Your task to perform on an android device: turn off translation in the chrome app Image 0: 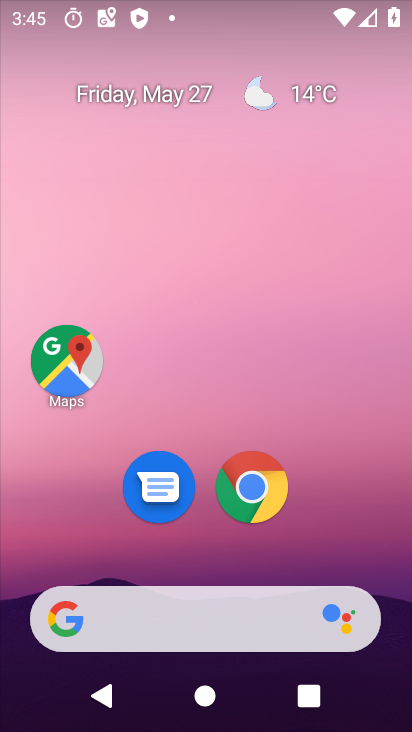
Step 0: click (255, 489)
Your task to perform on an android device: turn off translation in the chrome app Image 1: 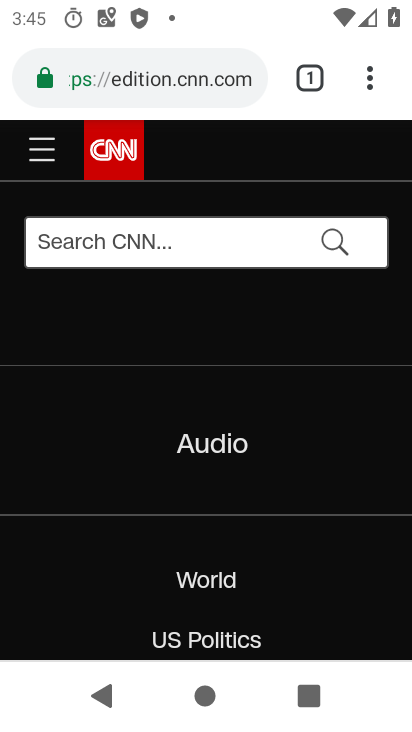
Step 1: drag from (377, 77) to (164, 537)
Your task to perform on an android device: turn off translation in the chrome app Image 2: 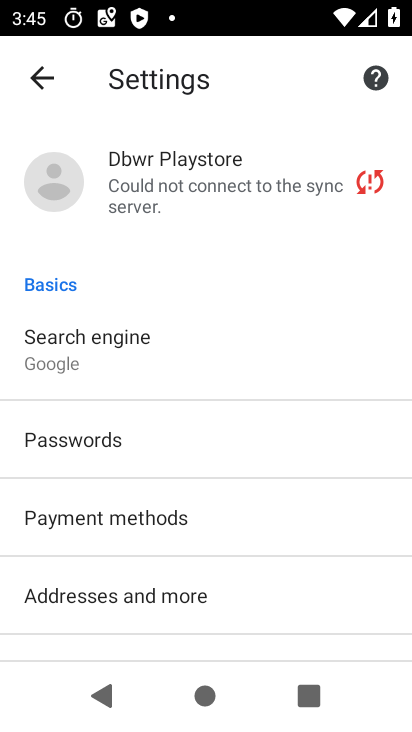
Step 2: drag from (228, 481) to (222, 250)
Your task to perform on an android device: turn off translation in the chrome app Image 3: 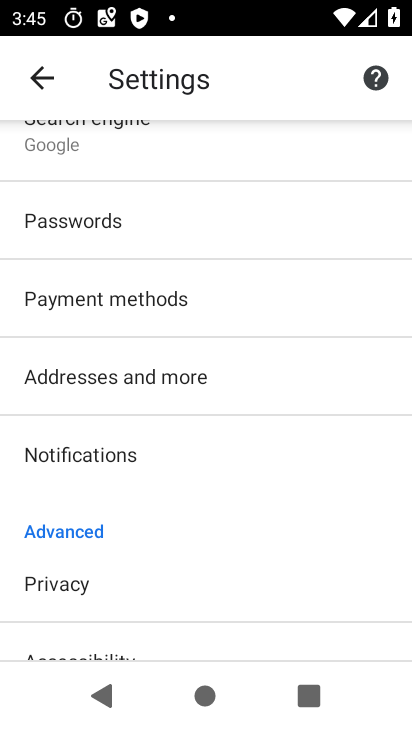
Step 3: drag from (247, 529) to (297, 302)
Your task to perform on an android device: turn off translation in the chrome app Image 4: 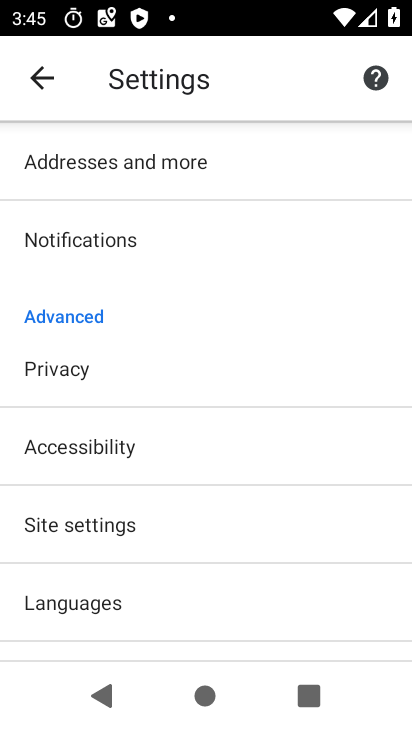
Step 4: click (130, 241)
Your task to perform on an android device: turn off translation in the chrome app Image 5: 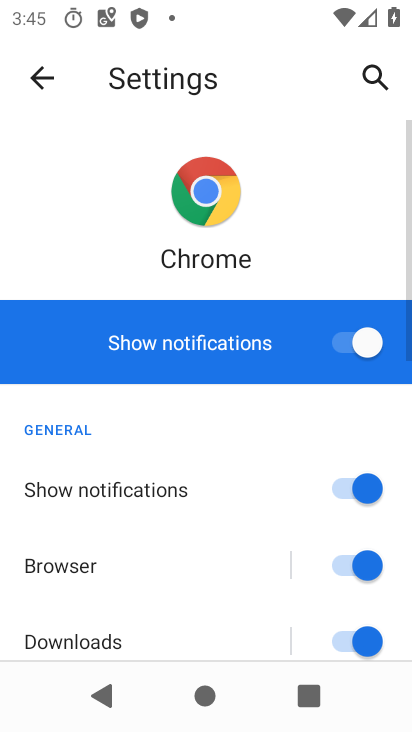
Step 5: click (340, 341)
Your task to perform on an android device: turn off translation in the chrome app Image 6: 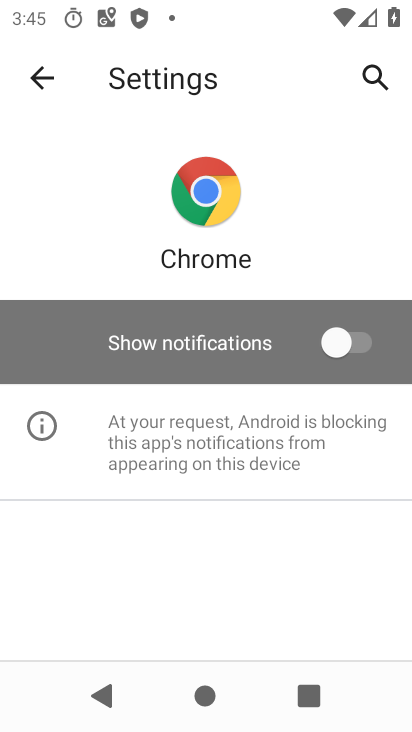
Step 6: task complete